Your task to perform on an android device: Turn on the flashlight Image 0: 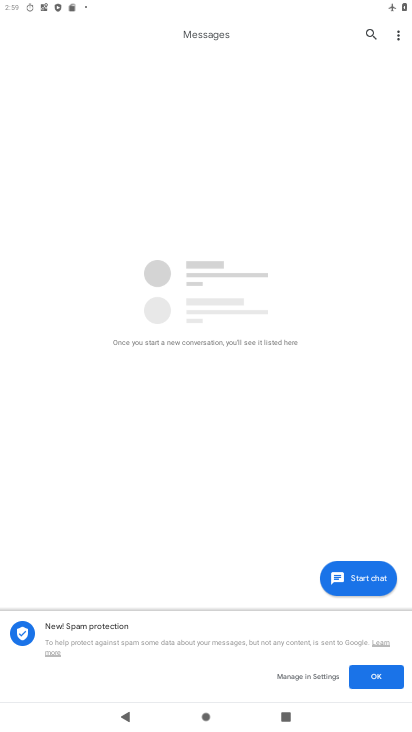
Step 0: drag from (175, 4) to (155, 447)
Your task to perform on an android device: Turn on the flashlight Image 1: 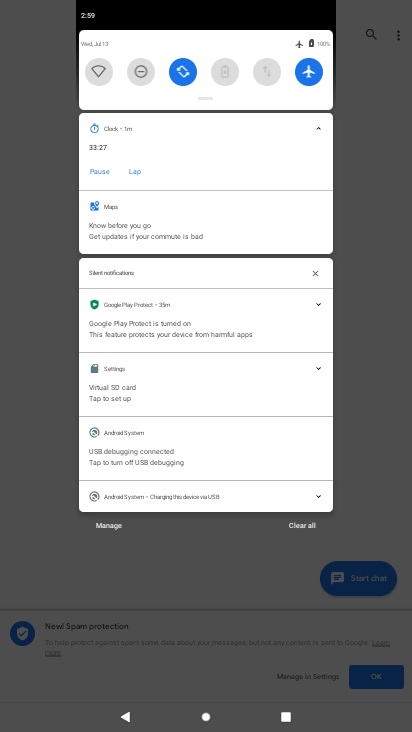
Step 1: task complete